Your task to perform on an android device: change the clock display to digital Image 0: 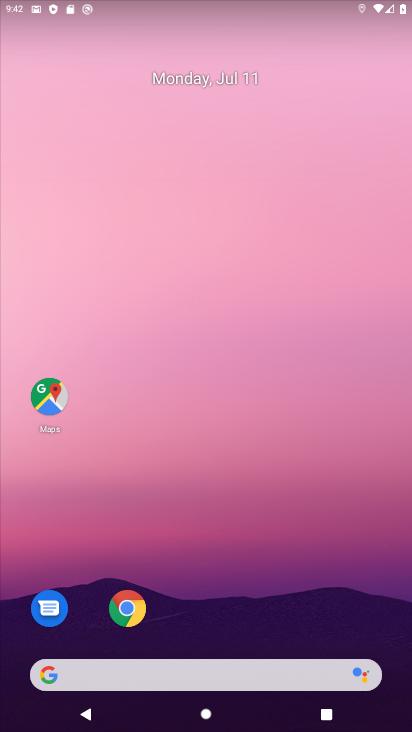
Step 0: drag from (262, 638) to (262, 200)
Your task to perform on an android device: change the clock display to digital Image 1: 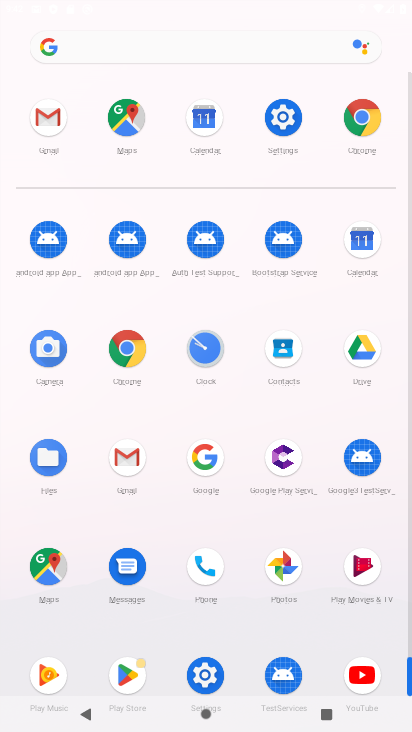
Step 1: click (197, 339)
Your task to perform on an android device: change the clock display to digital Image 2: 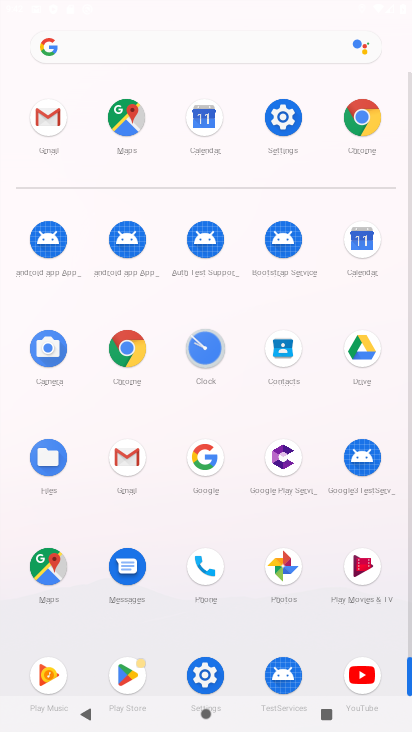
Step 2: click (196, 339)
Your task to perform on an android device: change the clock display to digital Image 3: 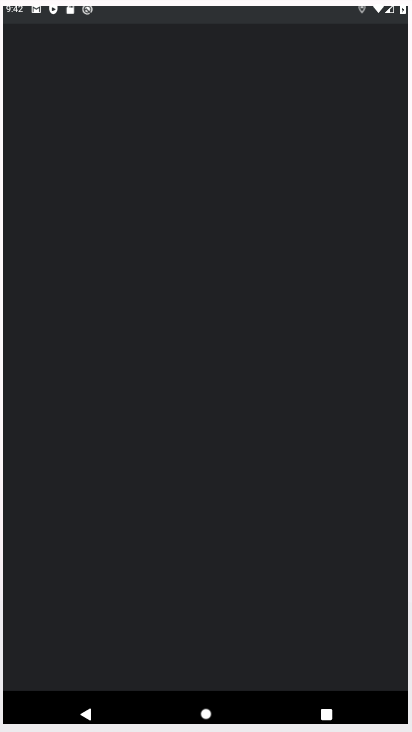
Step 3: click (195, 339)
Your task to perform on an android device: change the clock display to digital Image 4: 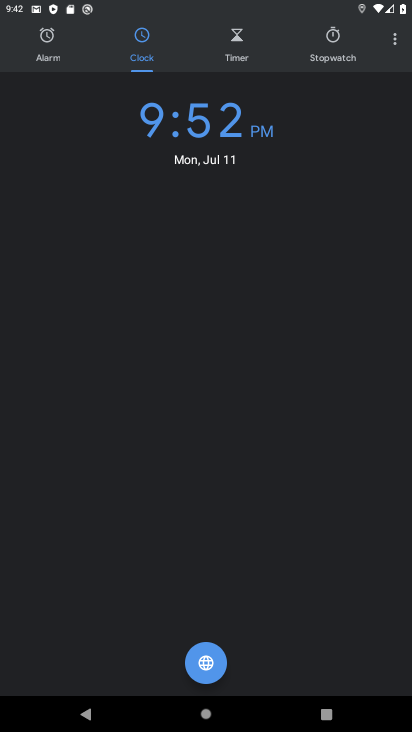
Step 4: click (392, 39)
Your task to perform on an android device: change the clock display to digital Image 5: 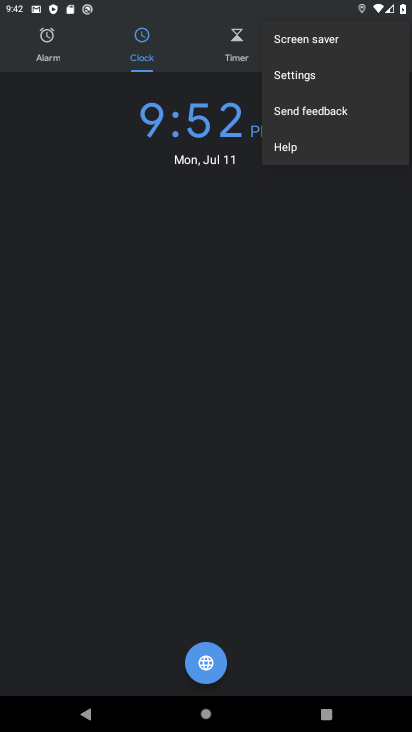
Step 5: click (302, 72)
Your task to perform on an android device: change the clock display to digital Image 6: 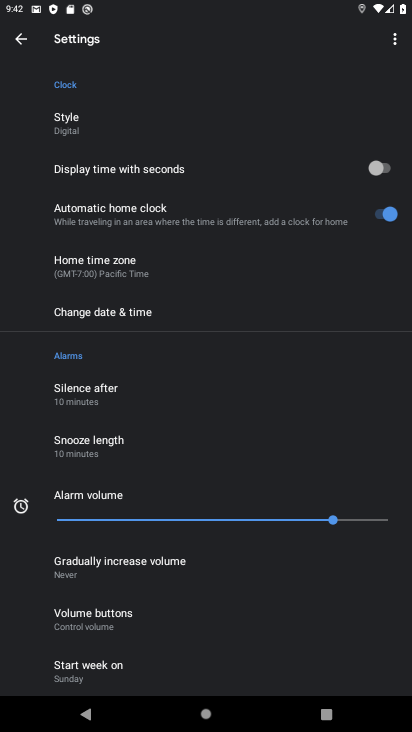
Step 6: click (63, 124)
Your task to perform on an android device: change the clock display to digital Image 7: 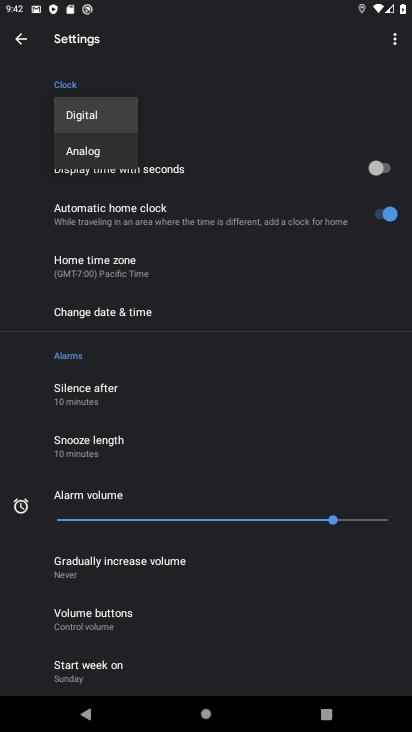
Step 7: click (85, 114)
Your task to perform on an android device: change the clock display to digital Image 8: 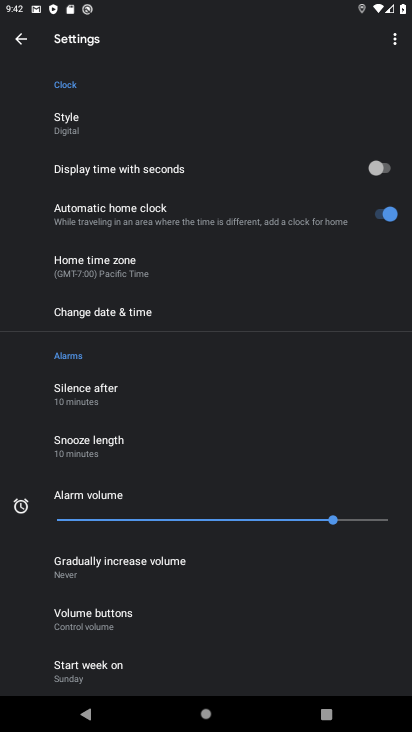
Step 8: task complete